Your task to perform on an android device: toggle notification dots Image 0: 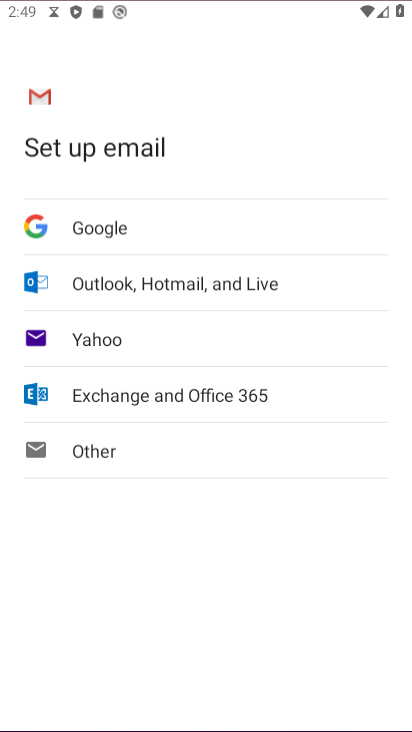
Step 0: drag from (196, 562) to (247, 179)
Your task to perform on an android device: toggle notification dots Image 1: 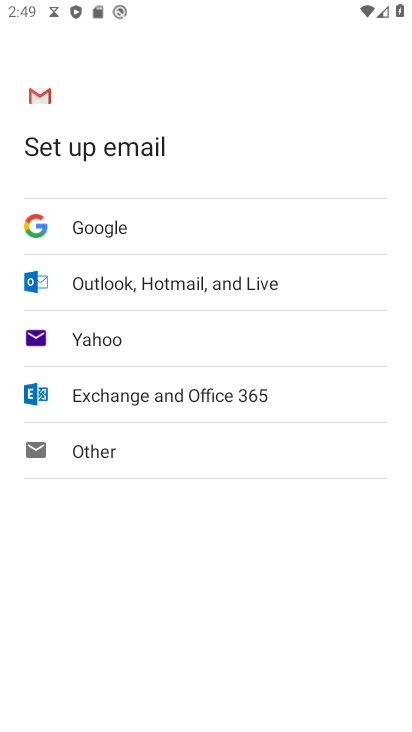
Step 1: press home button
Your task to perform on an android device: toggle notification dots Image 2: 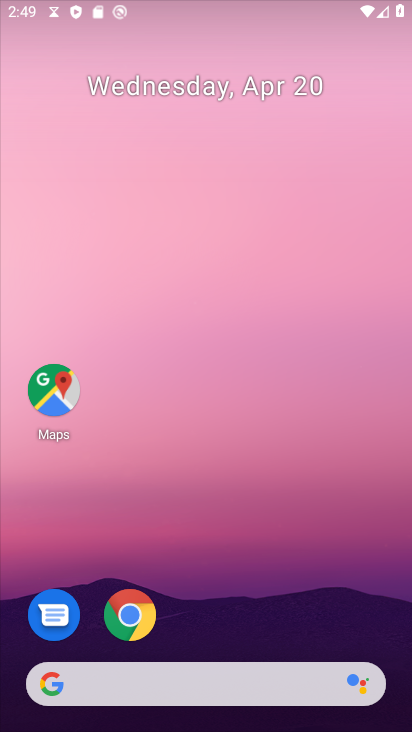
Step 2: drag from (194, 569) to (277, 17)
Your task to perform on an android device: toggle notification dots Image 3: 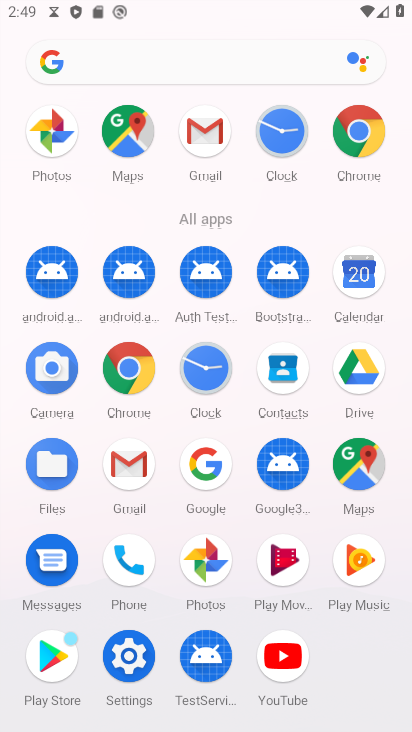
Step 3: click (130, 650)
Your task to perform on an android device: toggle notification dots Image 4: 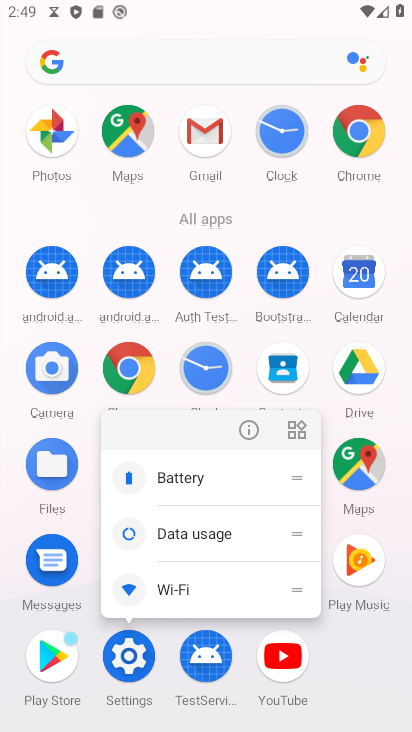
Step 4: click (252, 423)
Your task to perform on an android device: toggle notification dots Image 5: 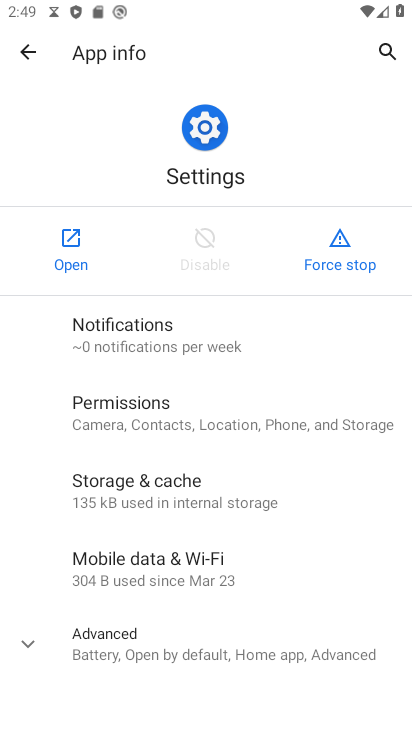
Step 5: click (69, 250)
Your task to perform on an android device: toggle notification dots Image 6: 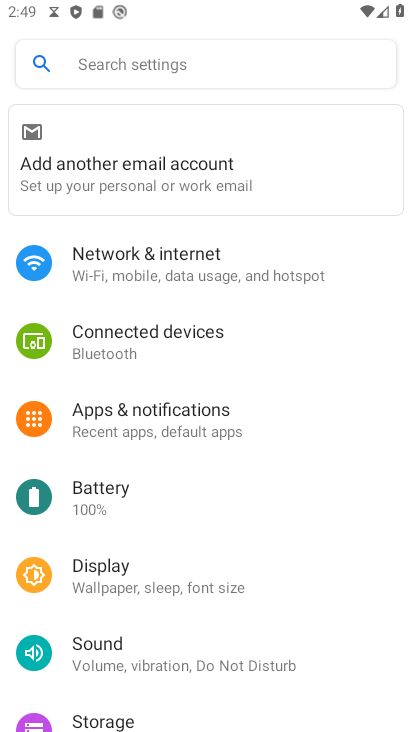
Step 6: click (161, 411)
Your task to perform on an android device: toggle notification dots Image 7: 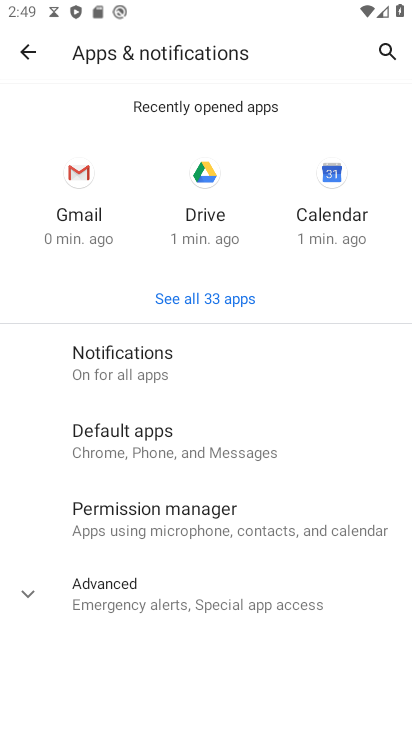
Step 7: click (166, 355)
Your task to perform on an android device: toggle notification dots Image 8: 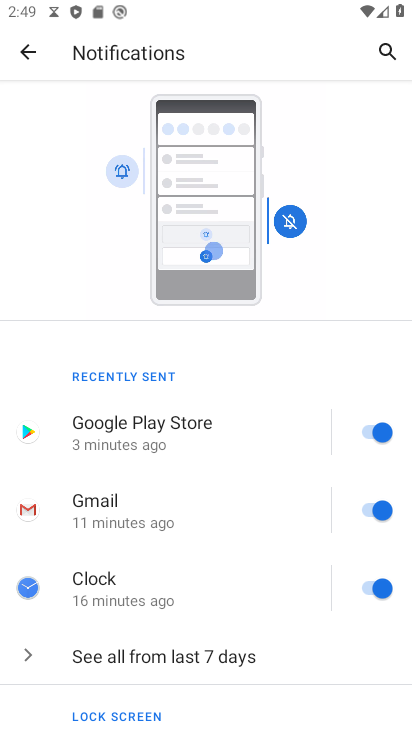
Step 8: drag from (242, 602) to (323, 161)
Your task to perform on an android device: toggle notification dots Image 9: 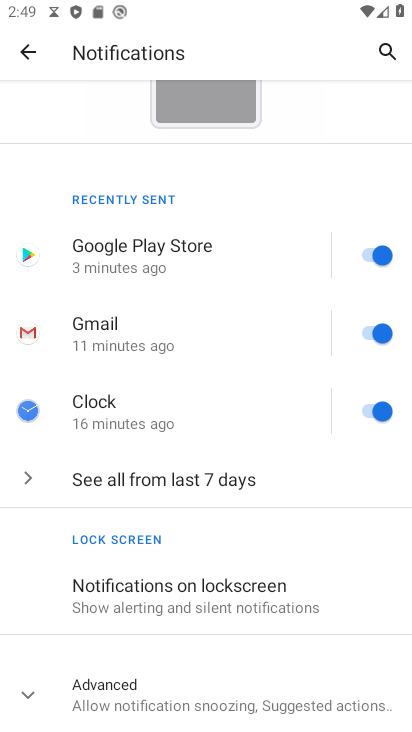
Step 9: drag from (227, 588) to (221, 264)
Your task to perform on an android device: toggle notification dots Image 10: 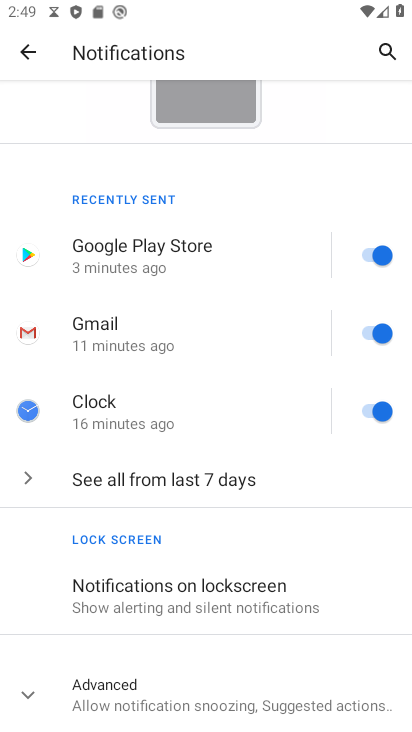
Step 10: drag from (217, 597) to (262, 160)
Your task to perform on an android device: toggle notification dots Image 11: 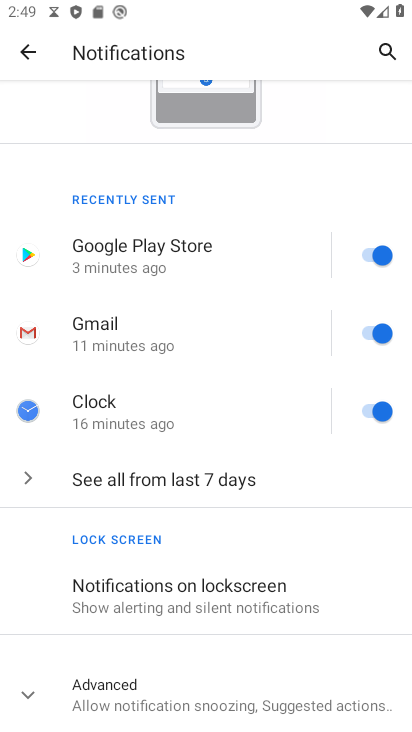
Step 11: click (137, 685)
Your task to perform on an android device: toggle notification dots Image 12: 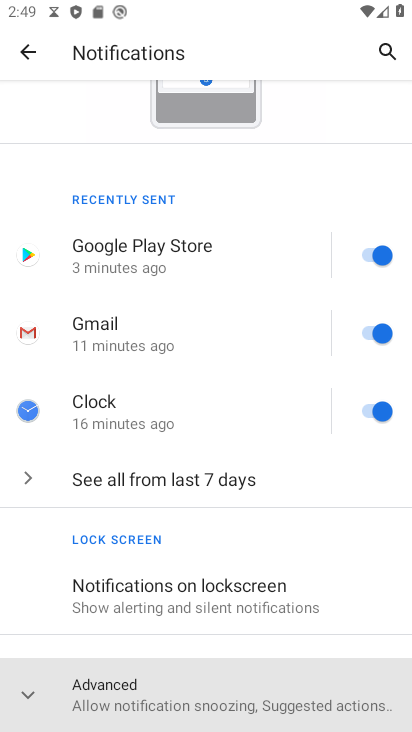
Step 12: drag from (191, 669) to (271, 41)
Your task to perform on an android device: toggle notification dots Image 13: 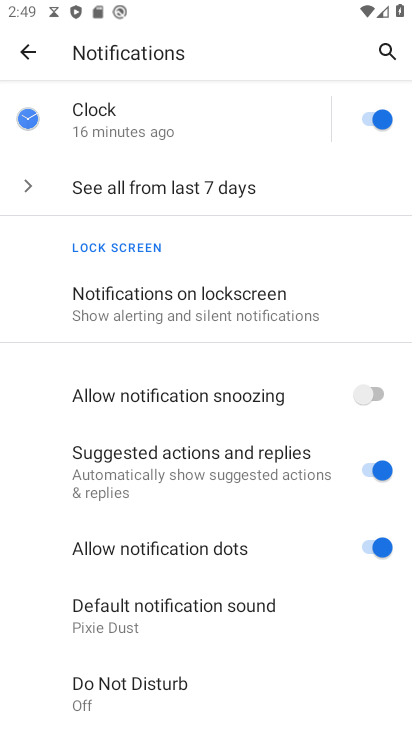
Step 13: click (380, 555)
Your task to perform on an android device: toggle notification dots Image 14: 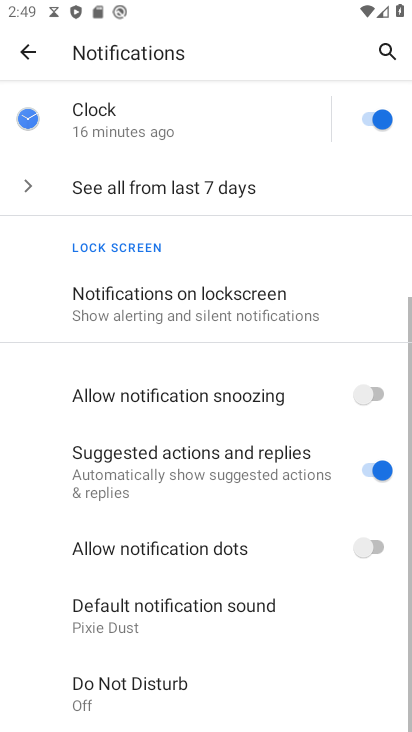
Step 14: task complete